Your task to perform on an android device: Go to Android settings Image 0: 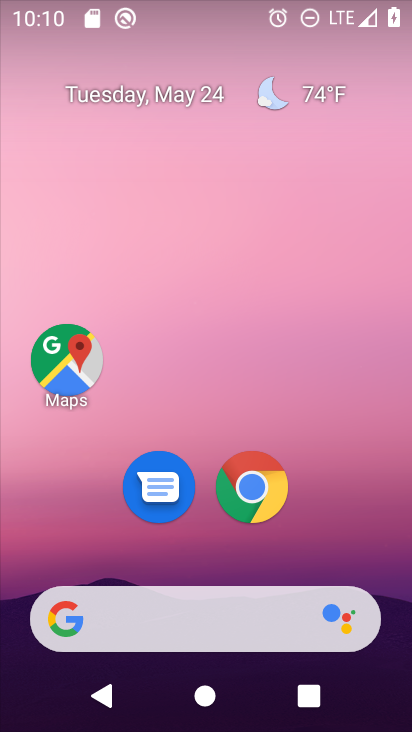
Step 0: drag from (374, 575) to (340, 24)
Your task to perform on an android device: Go to Android settings Image 1: 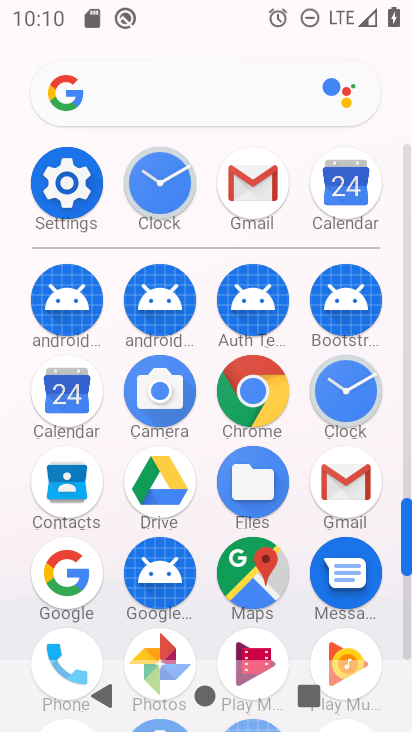
Step 1: click (67, 182)
Your task to perform on an android device: Go to Android settings Image 2: 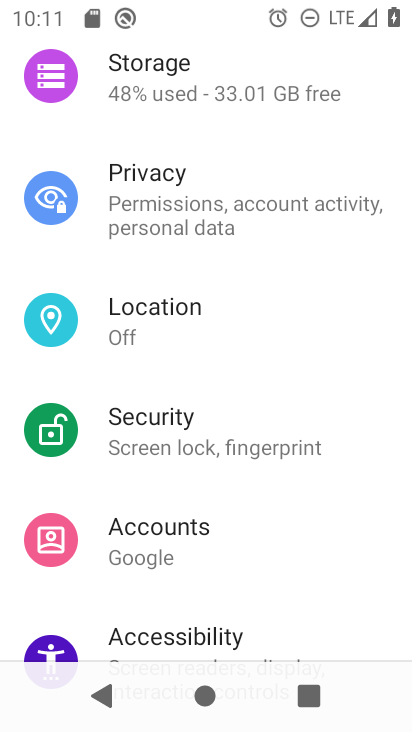
Step 2: task complete